Your task to perform on an android device: set an alarm Image 0: 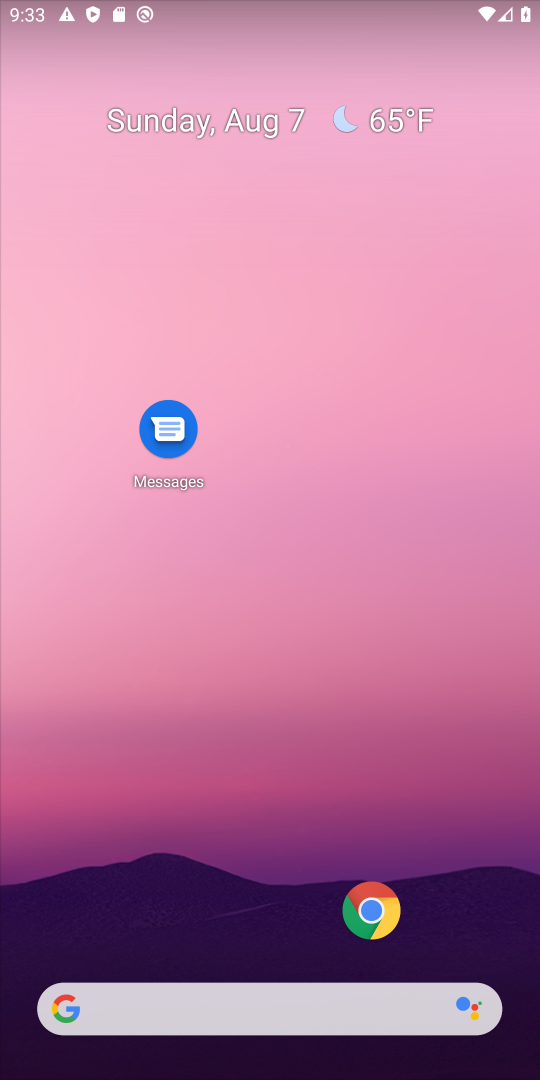
Step 0: drag from (380, 988) to (379, 328)
Your task to perform on an android device: set an alarm Image 1: 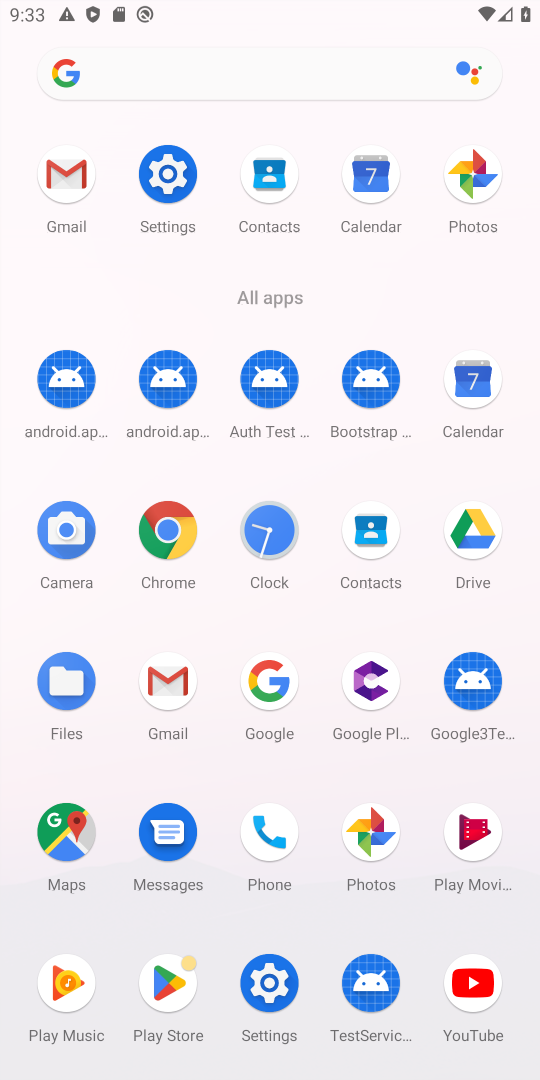
Step 1: click (251, 541)
Your task to perform on an android device: set an alarm Image 2: 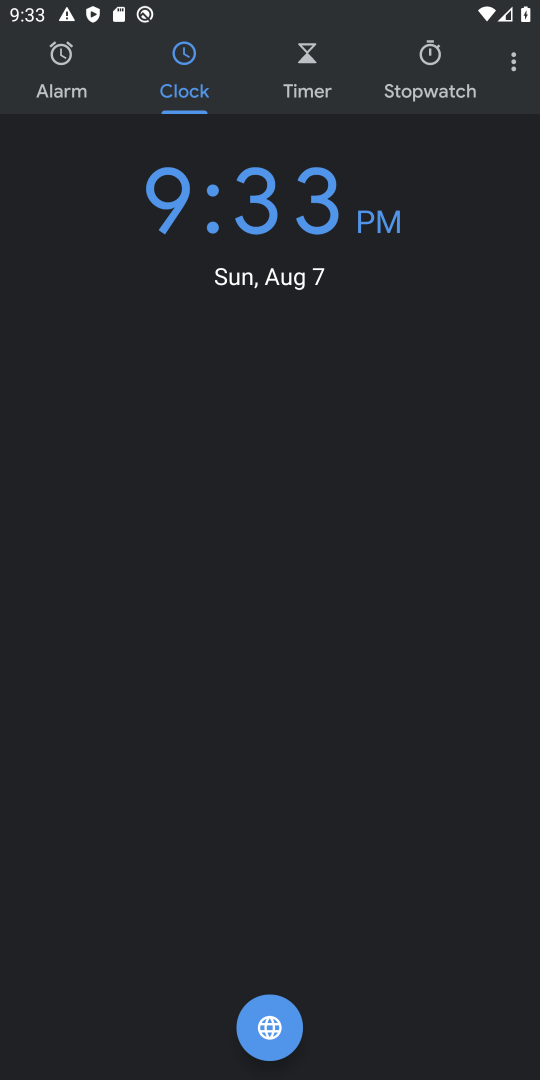
Step 2: click (78, 92)
Your task to perform on an android device: set an alarm Image 3: 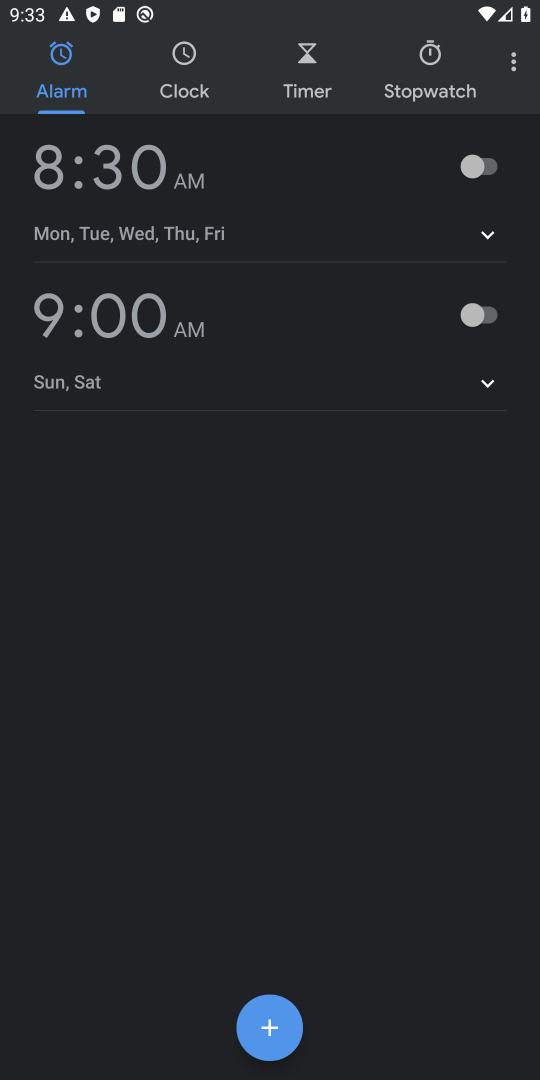
Step 3: click (271, 1035)
Your task to perform on an android device: set an alarm Image 4: 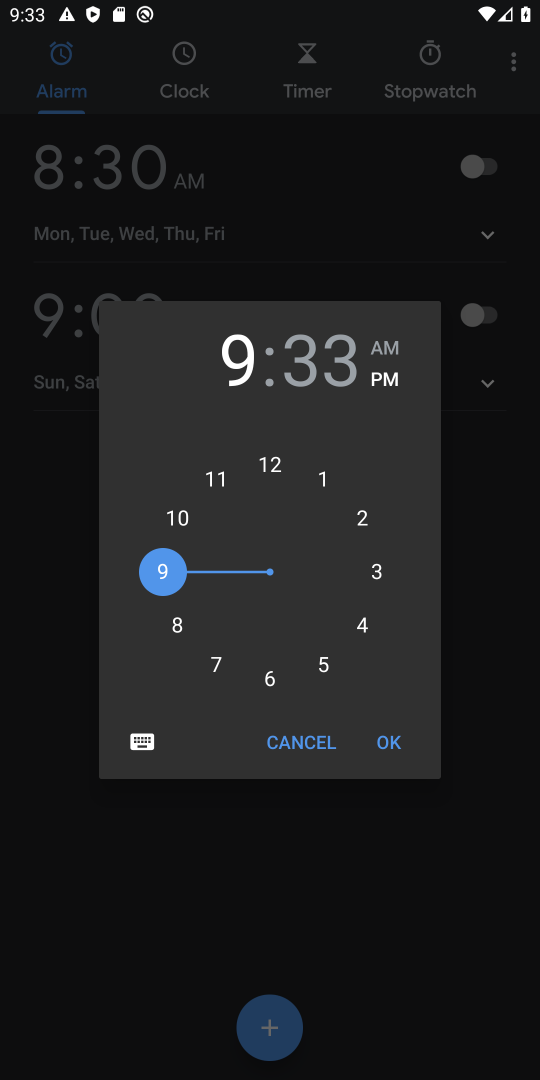
Step 4: click (275, 670)
Your task to perform on an android device: set an alarm Image 5: 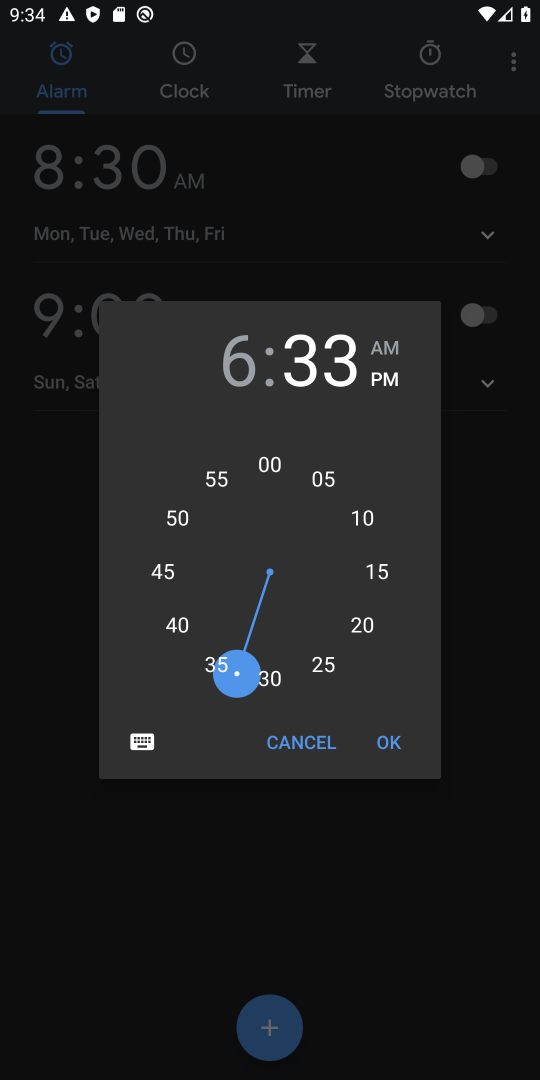
Step 5: click (275, 471)
Your task to perform on an android device: set an alarm Image 6: 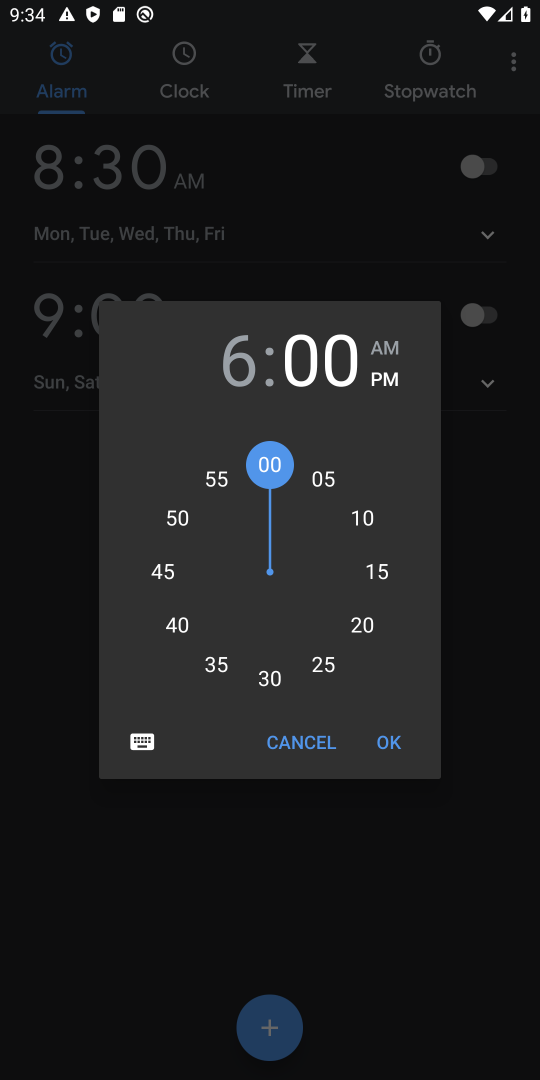
Step 6: click (394, 749)
Your task to perform on an android device: set an alarm Image 7: 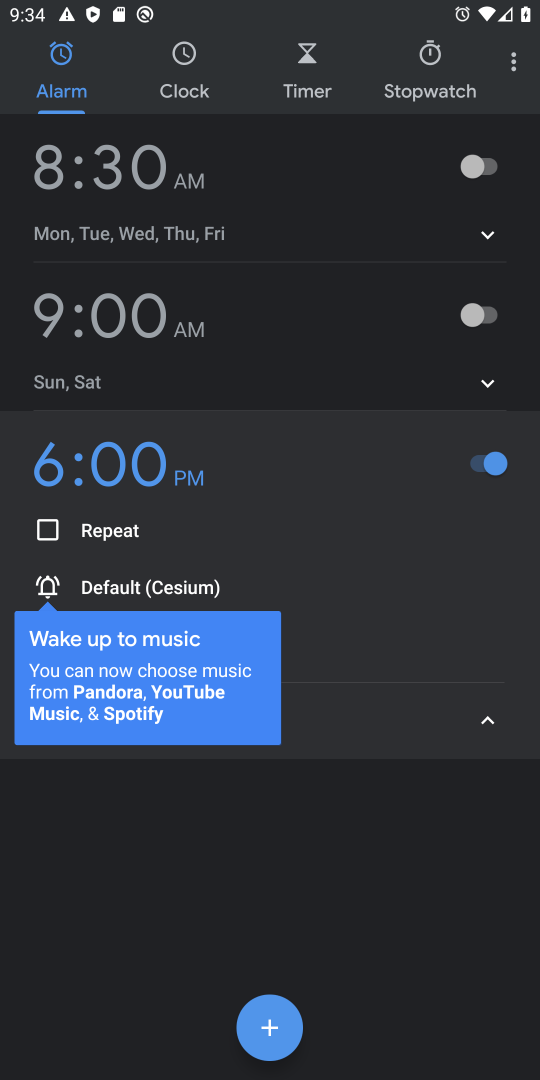
Step 7: task complete